Your task to perform on an android device: Look up the best rated gaming chairs on Target. Image 0: 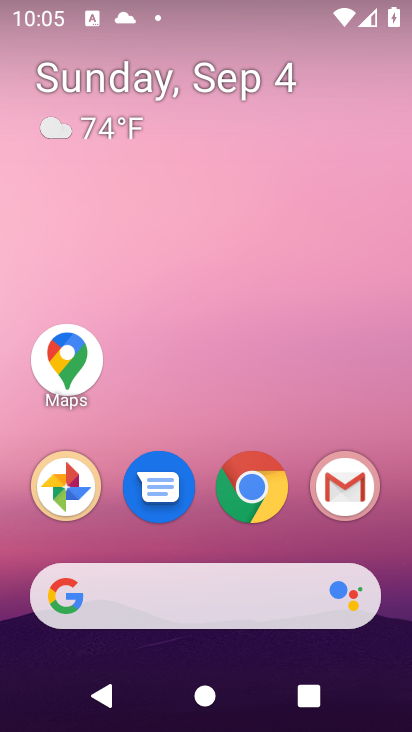
Step 0: click (152, 607)
Your task to perform on an android device: Look up the best rated gaming chairs on Target. Image 1: 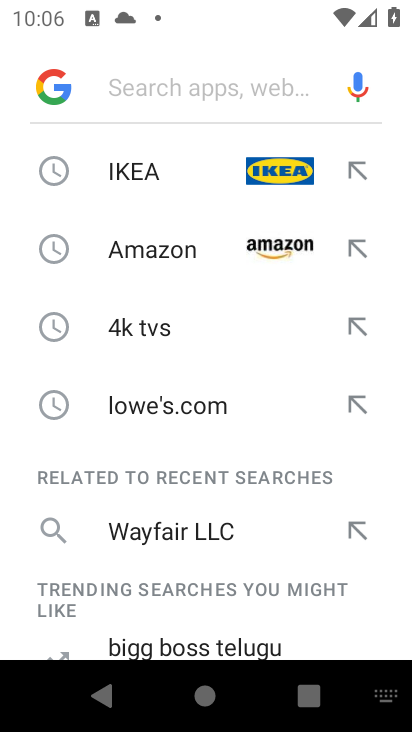
Step 1: type "target"
Your task to perform on an android device: Look up the best rated gaming chairs on Target. Image 2: 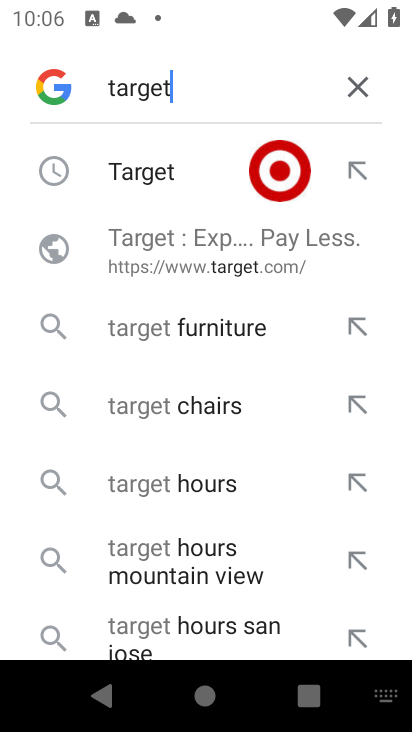
Step 2: click (291, 152)
Your task to perform on an android device: Look up the best rated gaming chairs on Target. Image 3: 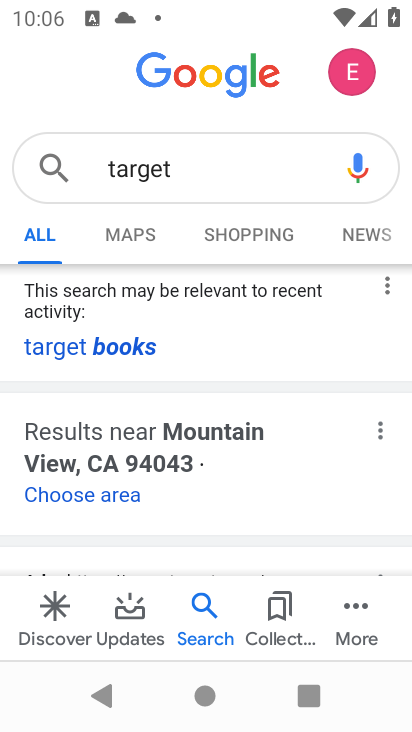
Step 3: drag from (179, 533) to (224, 228)
Your task to perform on an android device: Look up the best rated gaming chairs on Target. Image 4: 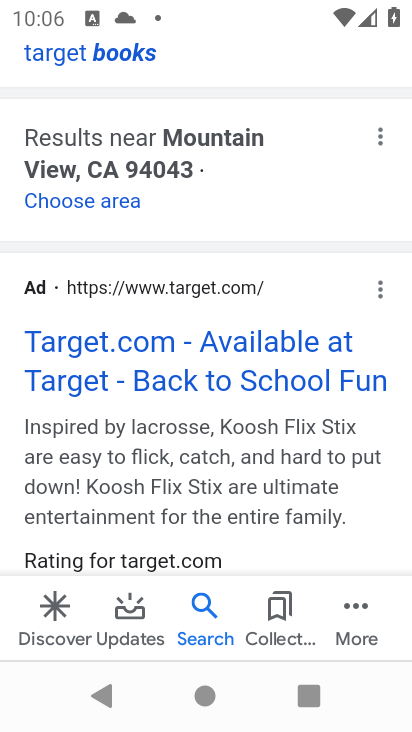
Step 4: click (69, 435)
Your task to perform on an android device: Look up the best rated gaming chairs on Target. Image 5: 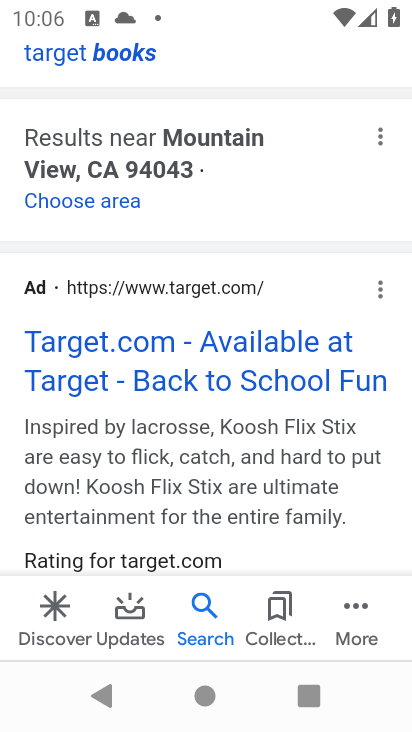
Step 5: click (100, 391)
Your task to perform on an android device: Look up the best rated gaming chairs on Target. Image 6: 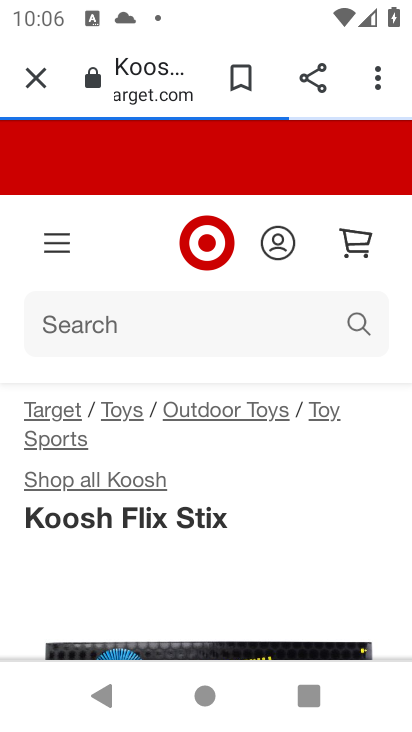
Step 6: click (118, 377)
Your task to perform on an android device: Look up the best rated gaming chairs on Target. Image 7: 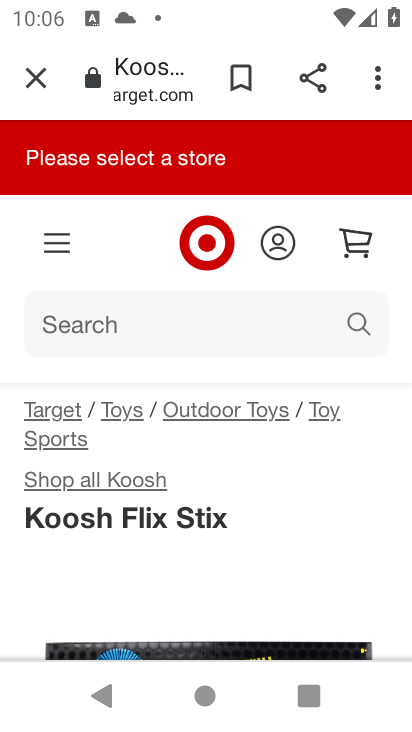
Step 7: click (150, 324)
Your task to perform on an android device: Look up the best rated gaming chairs on Target. Image 8: 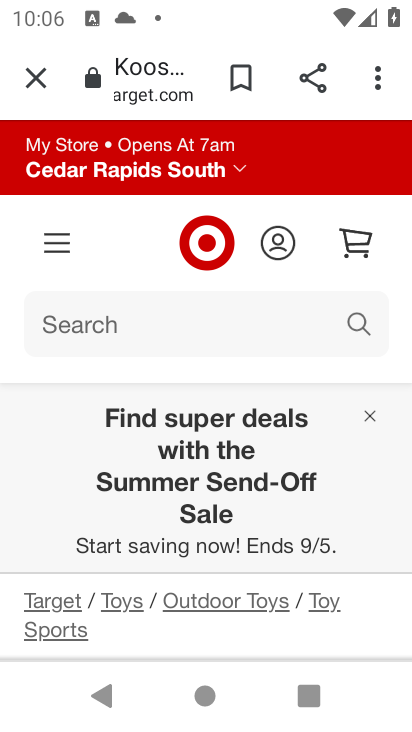
Step 8: click (150, 324)
Your task to perform on an android device: Look up the best rated gaming chairs on Target. Image 9: 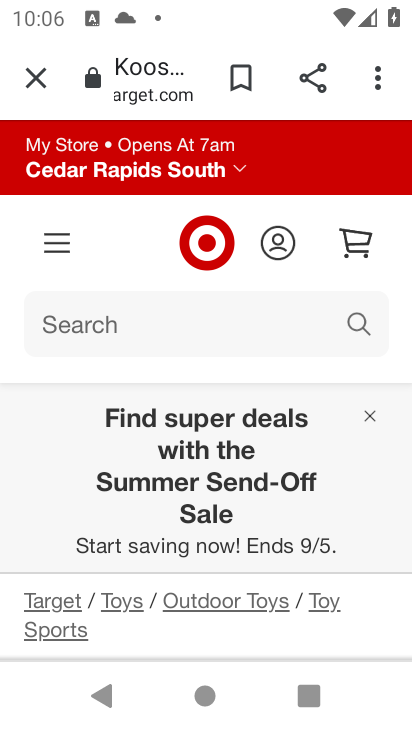
Step 9: click (150, 324)
Your task to perform on an android device: Look up the best rated gaming chairs on Target. Image 10: 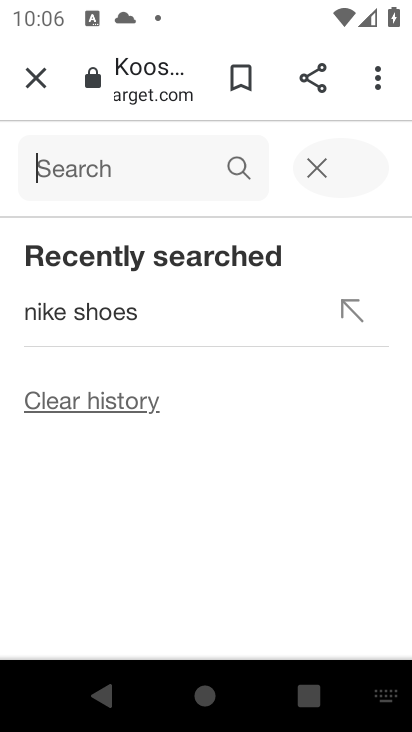
Step 10: type "gaming chairs"
Your task to perform on an android device: Look up the best rated gaming chairs on Target. Image 11: 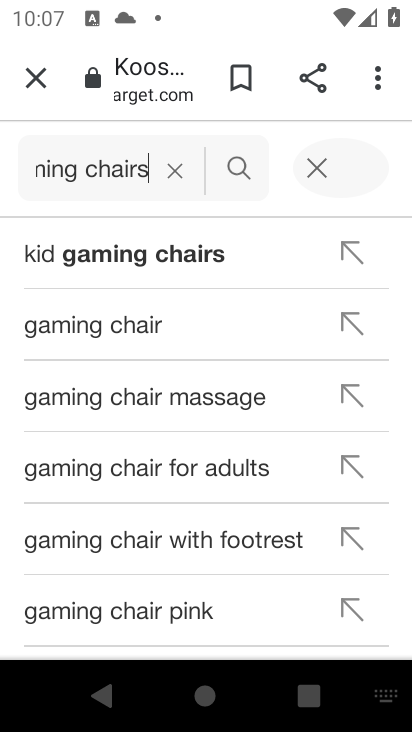
Step 11: click (155, 322)
Your task to perform on an android device: Look up the best rated gaming chairs on Target. Image 12: 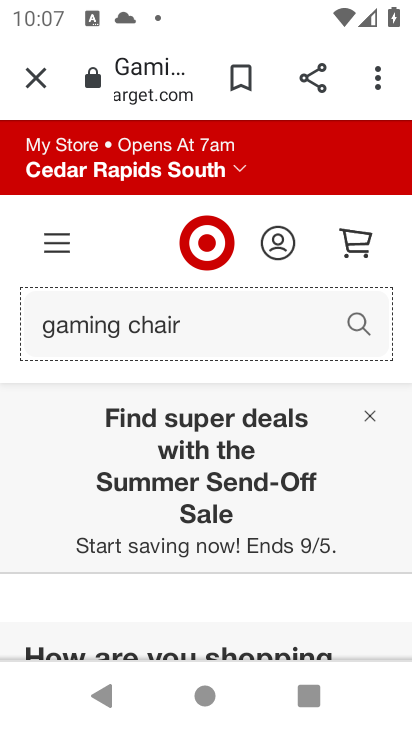
Step 12: task complete